Your task to perform on an android device: Go to calendar. Show me events next week Image 0: 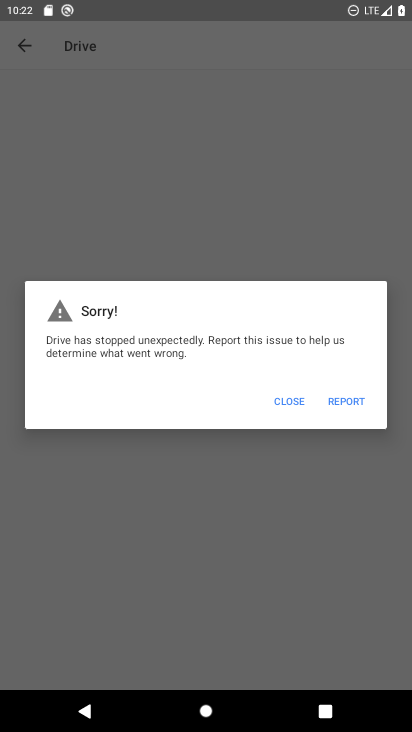
Step 0: press home button
Your task to perform on an android device: Go to calendar. Show me events next week Image 1: 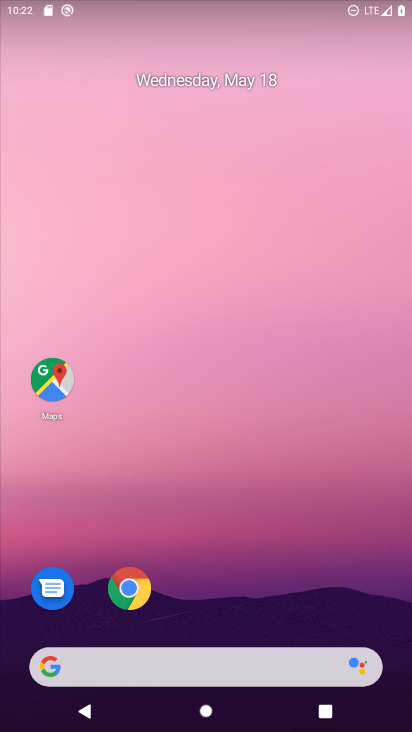
Step 1: drag from (330, 637) to (251, 3)
Your task to perform on an android device: Go to calendar. Show me events next week Image 2: 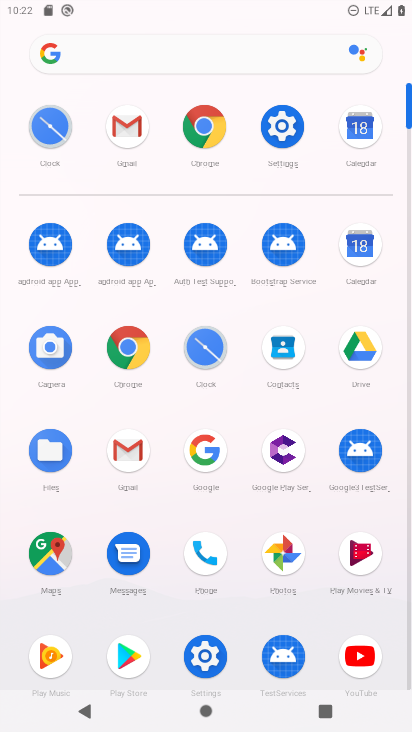
Step 2: click (360, 128)
Your task to perform on an android device: Go to calendar. Show me events next week Image 3: 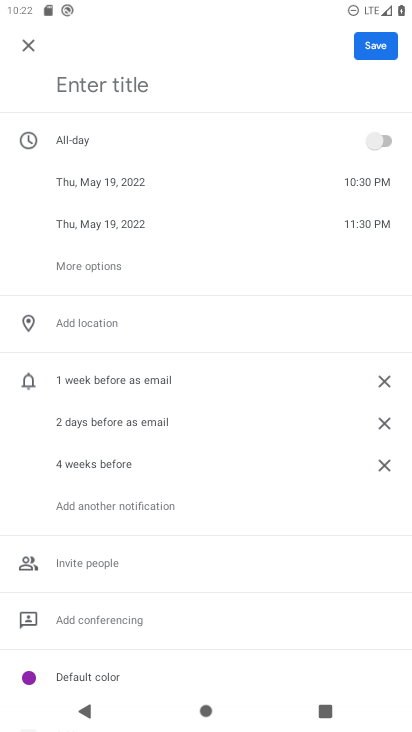
Step 3: click (30, 45)
Your task to perform on an android device: Go to calendar. Show me events next week Image 4: 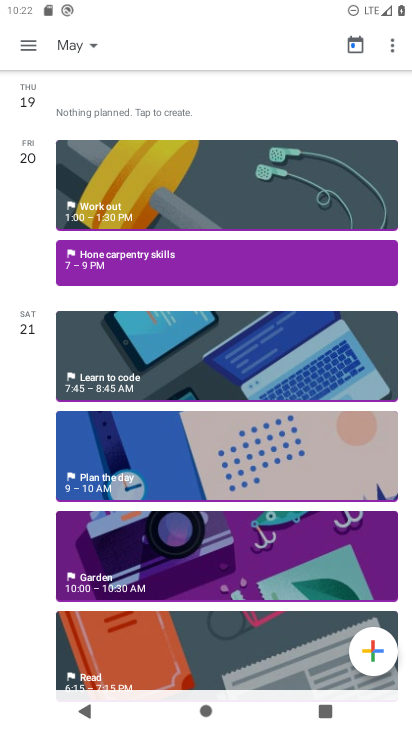
Step 4: click (30, 45)
Your task to perform on an android device: Go to calendar. Show me events next week Image 5: 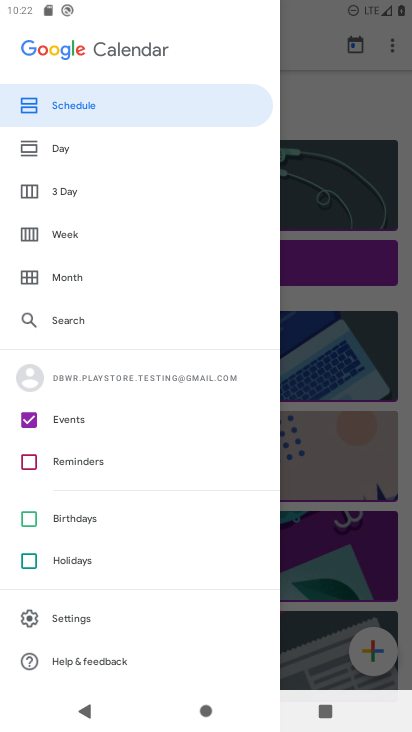
Step 5: click (72, 241)
Your task to perform on an android device: Go to calendar. Show me events next week Image 6: 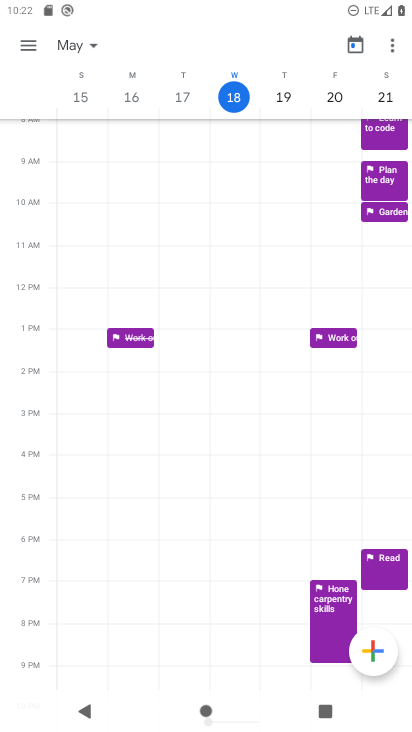
Step 6: task complete